Your task to perform on an android device: toggle translation in the chrome app Image 0: 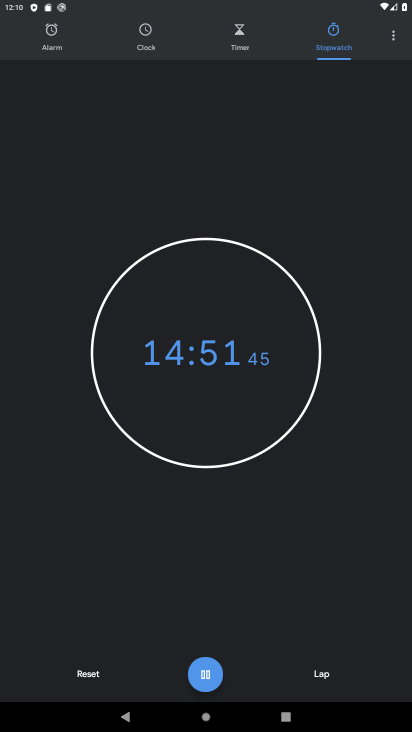
Step 0: press home button
Your task to perform on an android device: toggle translation in the chrome app Image 1: 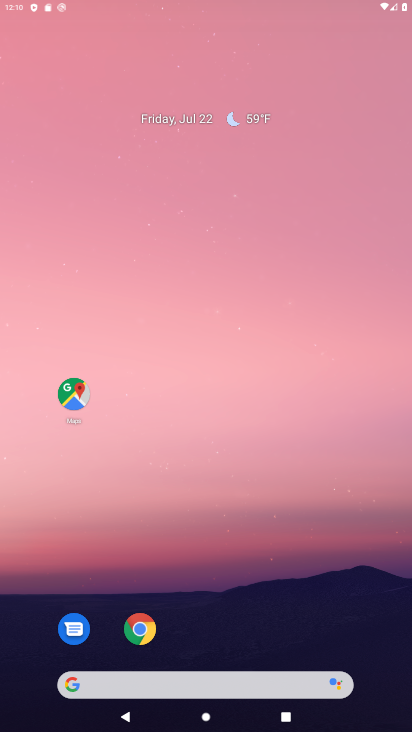
Step 1: drag from (267, 707) to (395, 20)
Your task to perform on an android device: toggle translation in the chrome app Image 2: 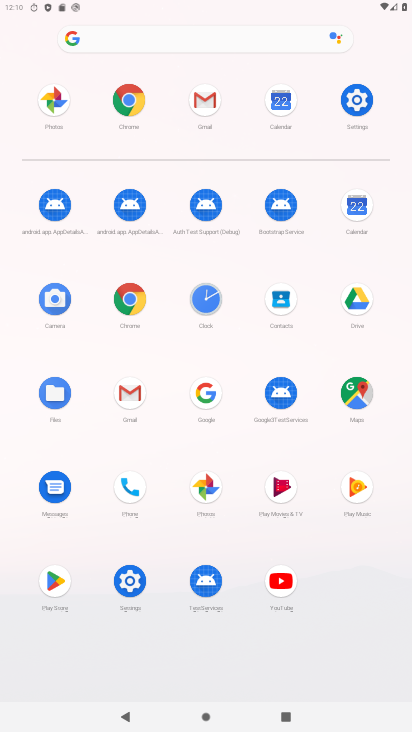
Step 2: click (132, 293)
Your task to perform on an android device: toggle translation in the chrome app Image 3: 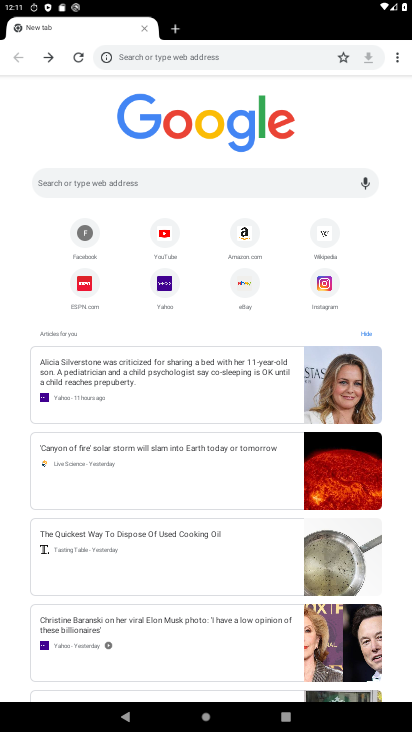
Step 3: drag from (397, 49) to (318, 269)
Your task to perform on an android device: toggle translation in the chrome app Image 4: 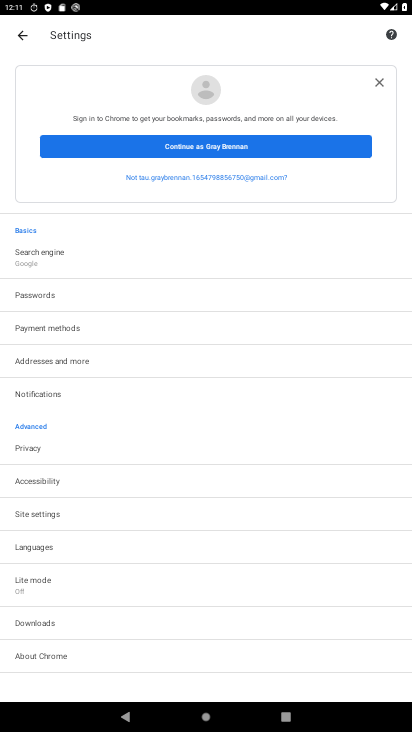
Step 4: drag from (118, 641) to (163, 368)
Your task to perform on an android device: toggle translation in the chrome app Image 5: 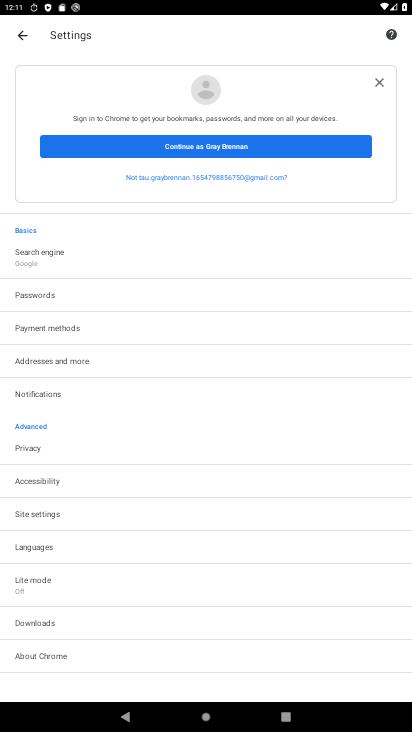
Step 5: click (59, 517)
Your task to perform on an android device: toggle translation in the chrome app Image 6: 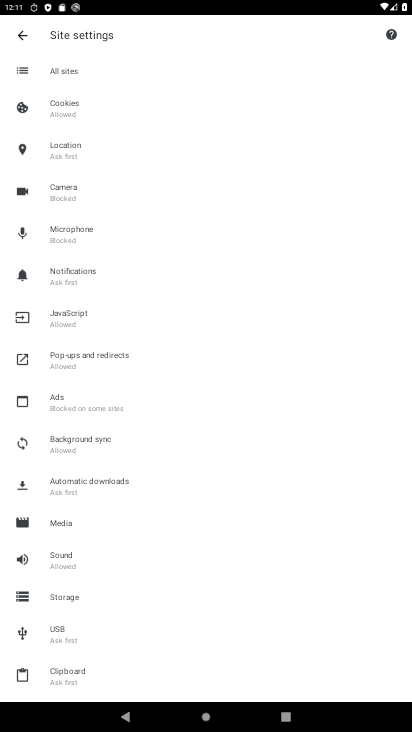
Step 6: press back button
Your task to perform on an android device: toggle translation in the chrome app Image 7: 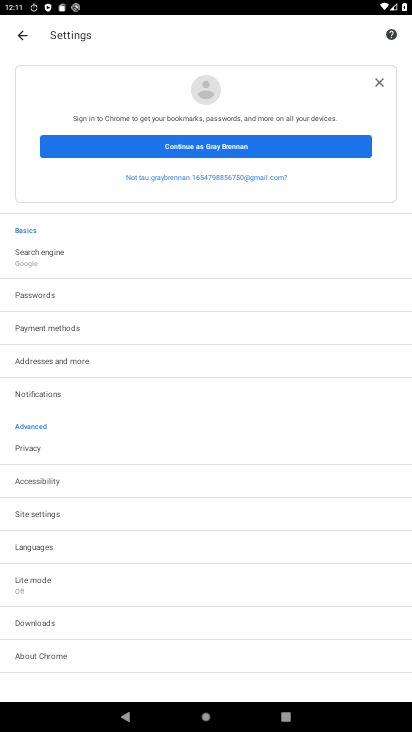
Step 7: click (53, 550)
Your task to perform on an android device: toggle translation in the chrome app Image 8: 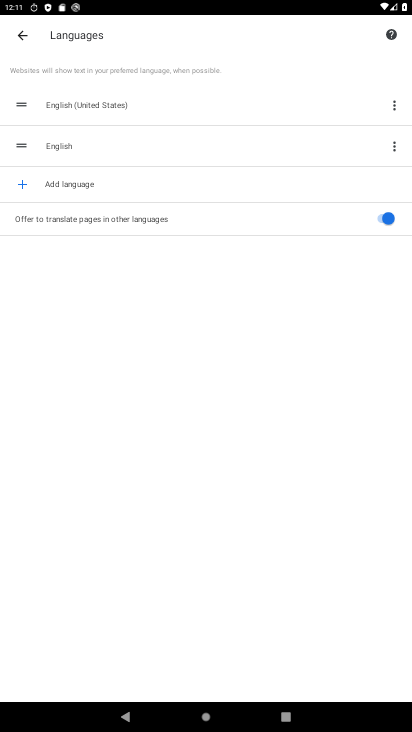
Step 8: click (387, 218)
Your task to perform on an android device: toggle translation in the chrome app Image 9: 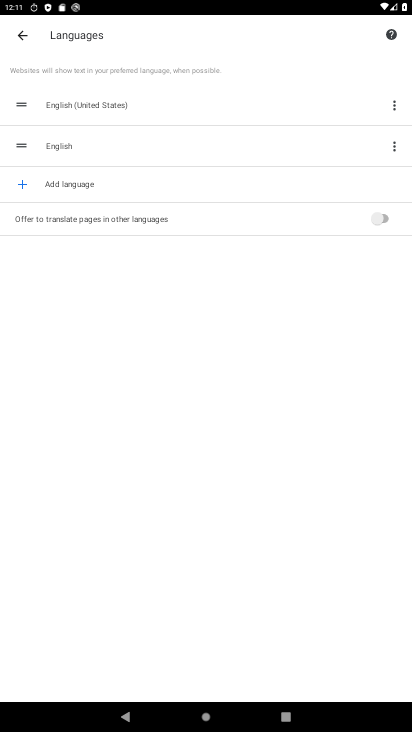
Step 9: task complete